Your task to perform on an android device: Open settings on Google Maps Image 0: 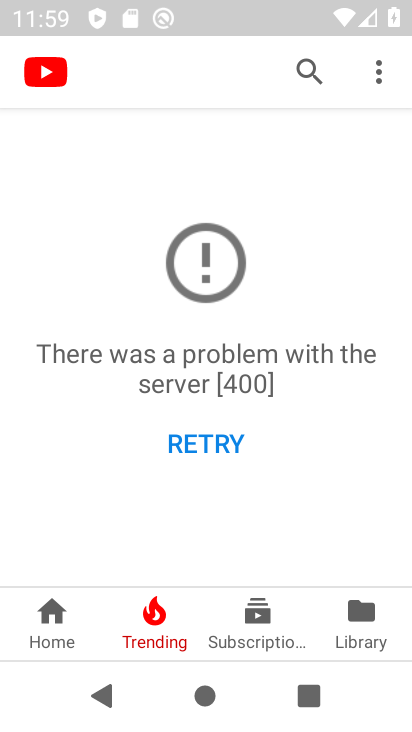
Step 0: press back button
Your task to perform on an android device: Open settings on Google Maps Image 1: 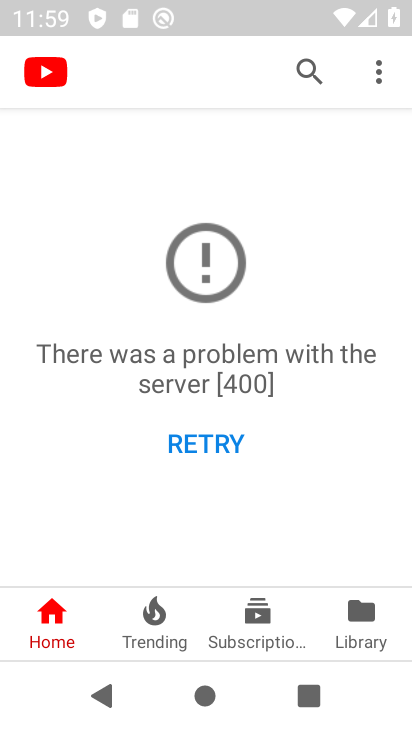
Step 1: press home button
Your task to perform on an android device: Open settings on Google Maps Image 2: 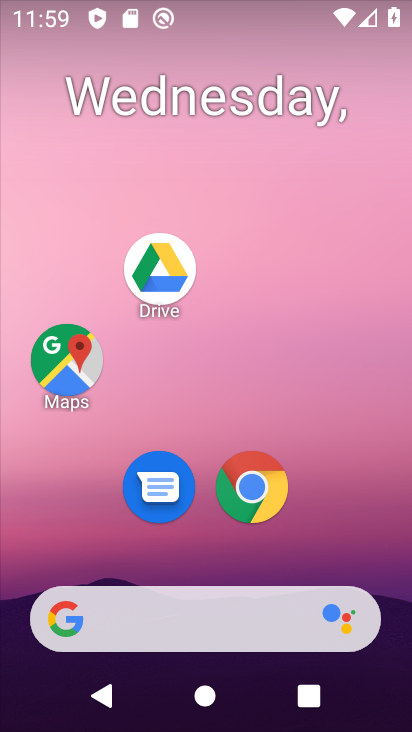
Step 2: click (70, 380)
Your task to perform on an android device: Open settings on Google Maps Image 3: 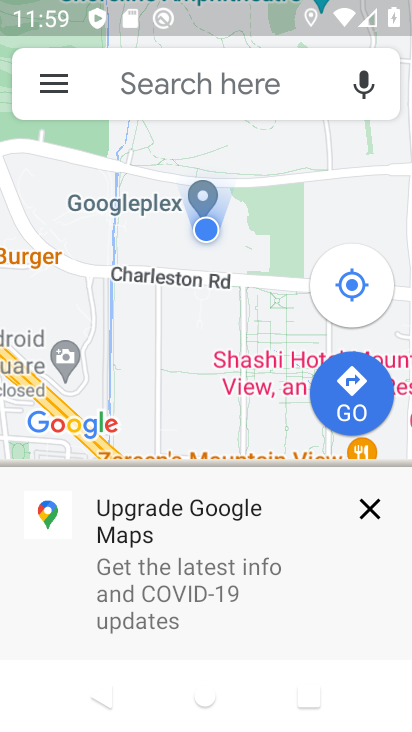
Step 3: click (58, 95)
Your task to perform on an android device: Open settings on Google Maps Image 4: 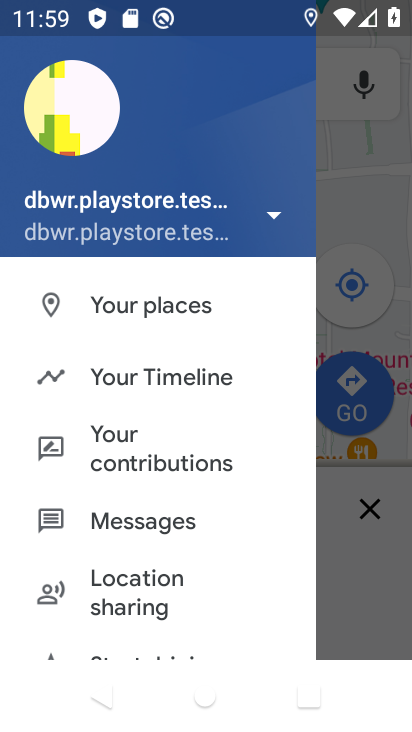
Step 4: drag from (135, 573) to (177, 181)
Your task to perform on an android device: Open settings on Google Maps Image 5: 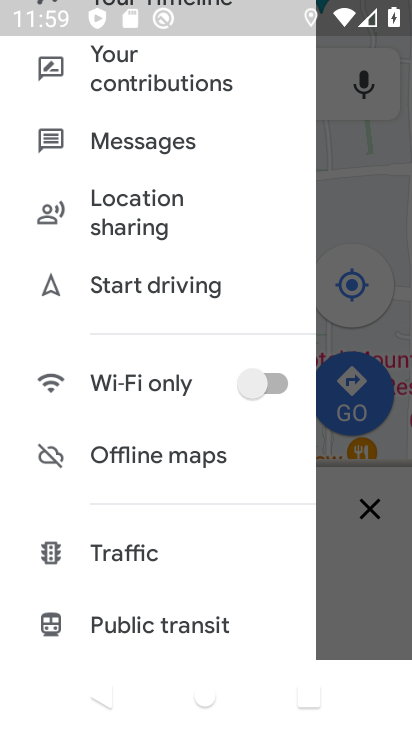
Step 5: drag from (147, 568) to (177, 211)
Your task to perform on an android device: Open settings on Google Maps Image 6: 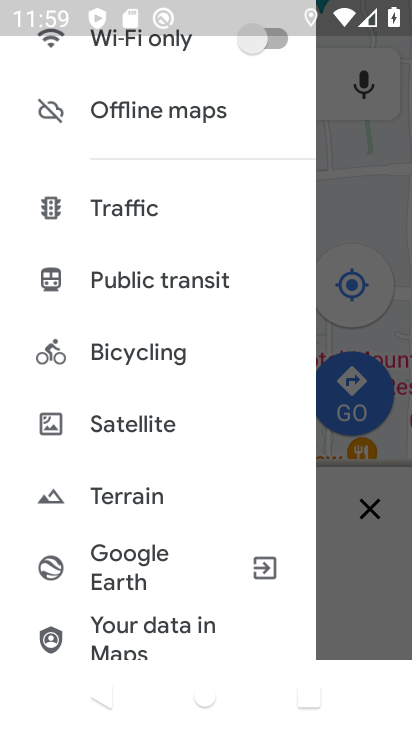
Step 6: drag from (149, 433) to (190, 111)
Your task to perform on an android device: Open settings on Google Maps Image 7: 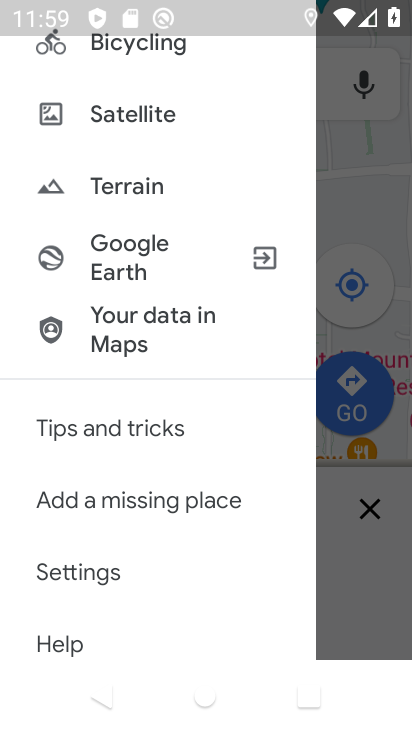
Step 7: click (93, 579)
Your task to perform on an android device: Open settings on Google Maps Image 8: 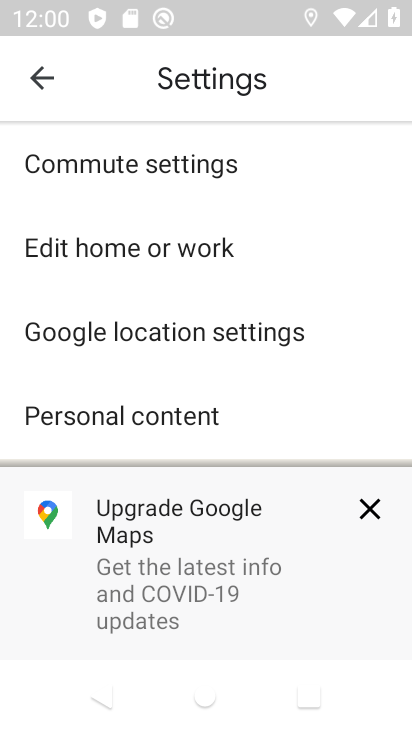
Step 8: task complete